Your task to perform on an android device: Open Chrome and go to the settings page Image 0: 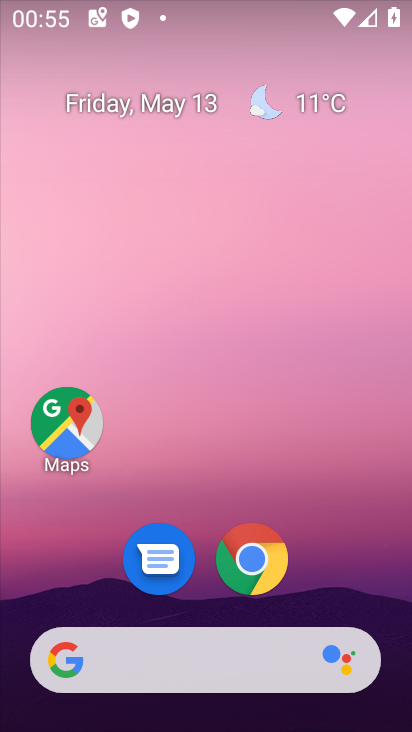
Step 0: click (266, 562)
Your task to perform on an android device: Open Chrome and go to the settings page Image 1: 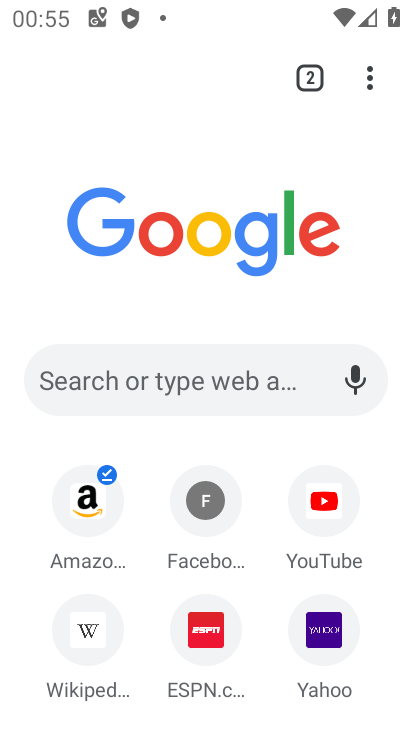
Step 1: click (358, 71)
Your task to perform on an android device: Open Chrome and go to the settings page Image 2: 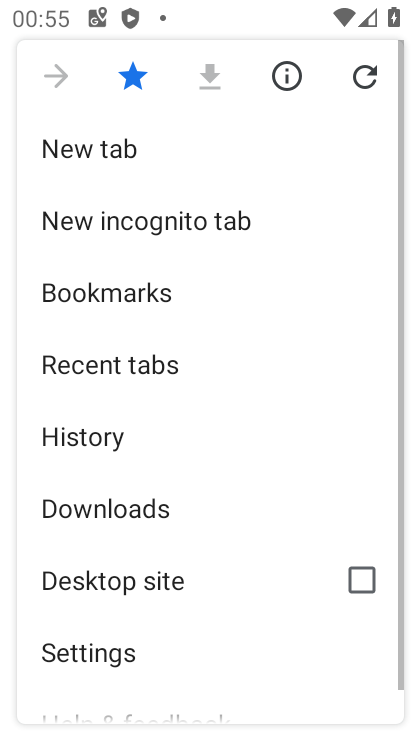
Step 2: drag from (258, 587) to (227, 177)
Your task to perform on an android device: Open Chrome and go to the settings page Image 3: 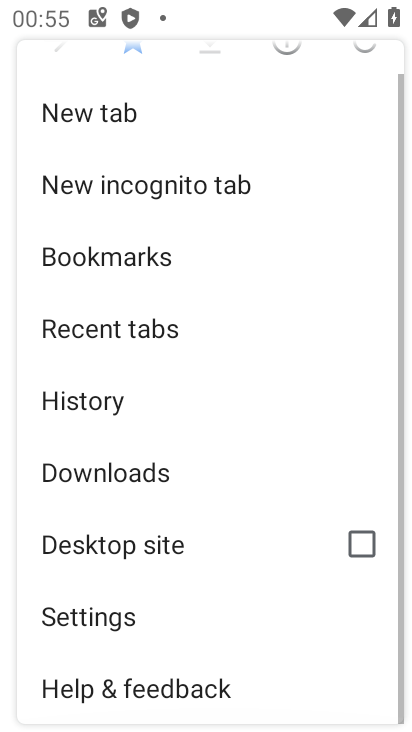
Step 3: click (167, 627)
Your task to perform on an android device: Open Chrome and go to the settings page Image 4: 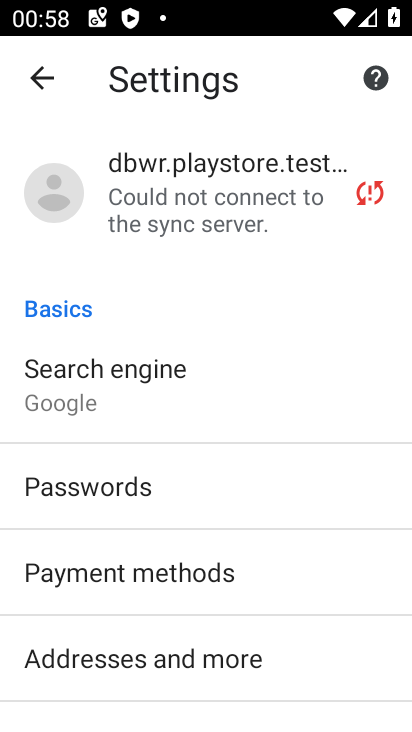
Step 4: task complete